Your task to perform on an android device: turn on data saver in the chrome app Image 0: 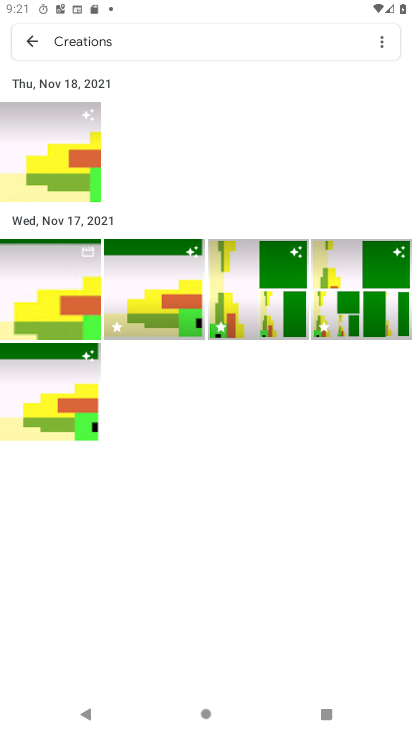
Step 0: press home button
Your task to perform on an android device: turn on data saver in the chrome app Image 1: 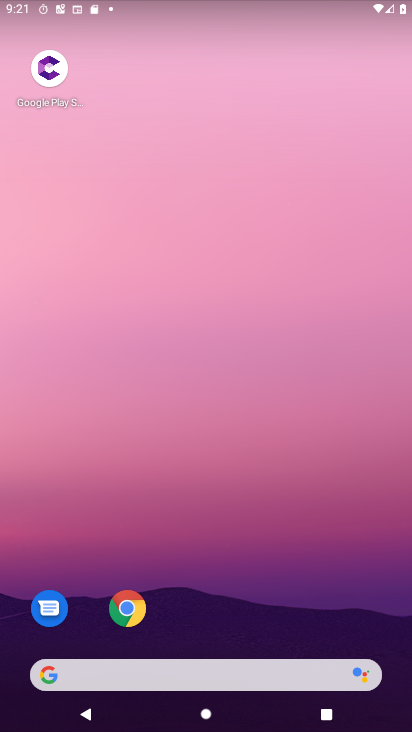
Step 1: click (125, 606)
Your task to perform on an android device: turn on data saver in the chrome app Image 2: 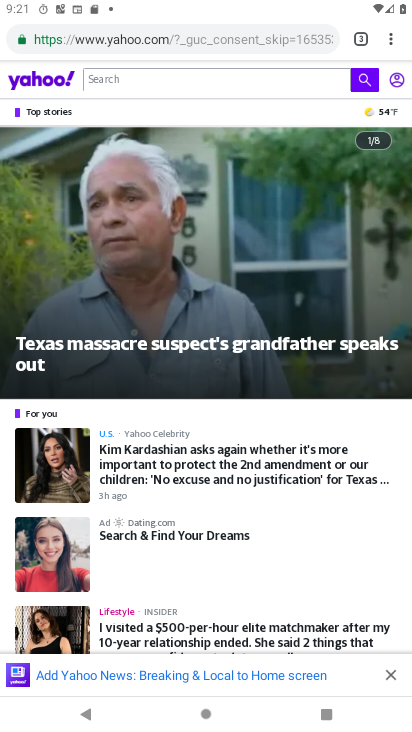
Step 2: click (392, 45)
Your task to perform on an android device: turn on data saver in the chrome app Image 3: 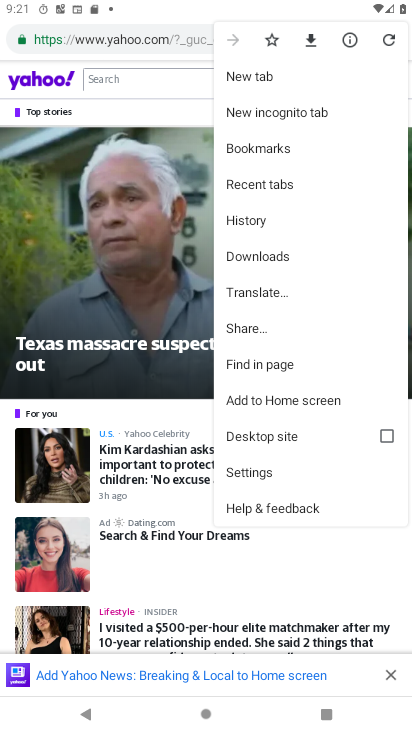
Step 3: click (244, 468)
Your task to perform on an android device: turn on data saver in the chrome app Image 4: 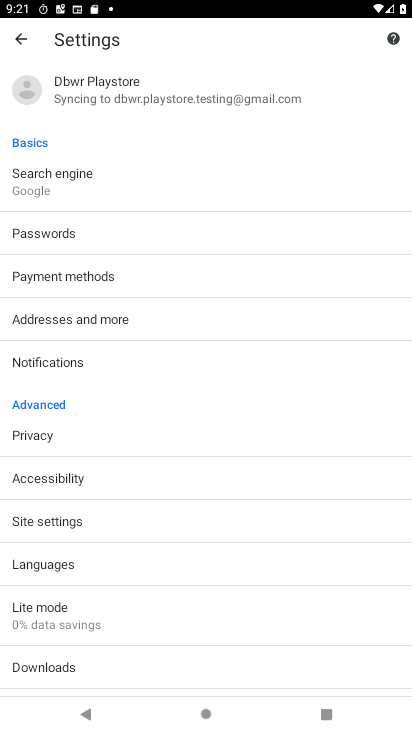
Step 4: click (56, 606)
Your task to perform on an android device: turn on data saver in the chrome app Image 5: 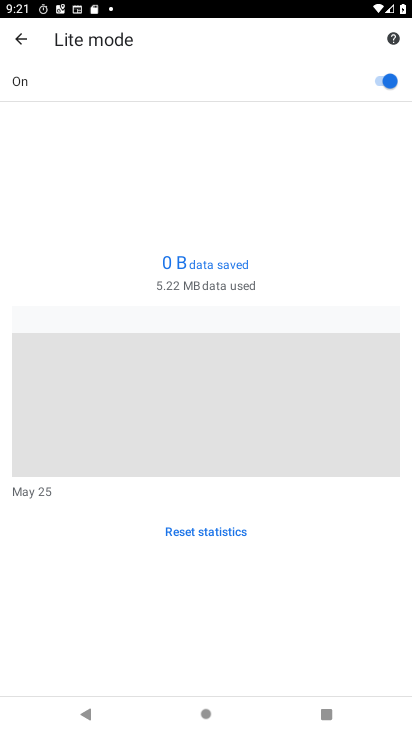
Step 5: task complete